Your task to perform on an android device: turn off priority inbox in the gmail app Image 0: 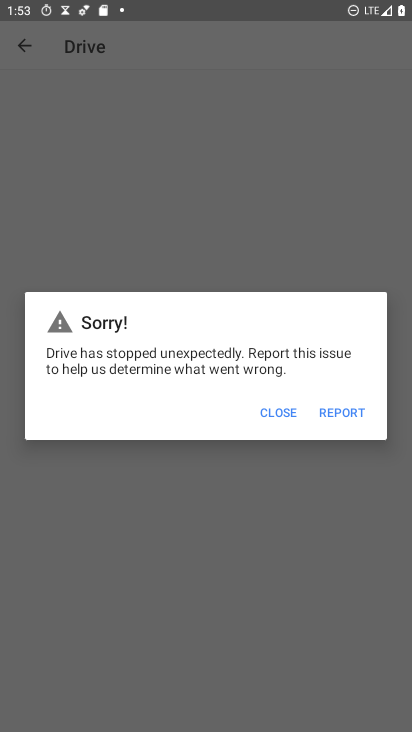
Step 0: press home button
Your task to perform on an android device: turn off priority inbox in the gmail app Image 1: 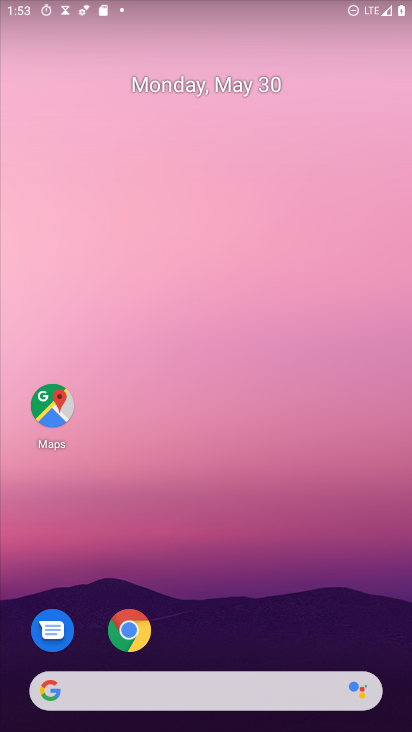
Step 1: drag from (265, 704) to (228, 200)
Your task to perform on an android device: turn off priority inbox in the gmail app Image 2: 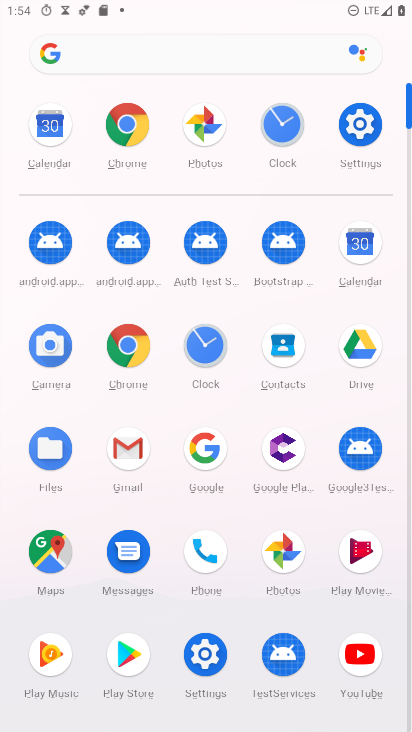
Step 2: click (115, 460)
Your task to perform on an android device: turn off priority inbox in the gmail app Image 3: 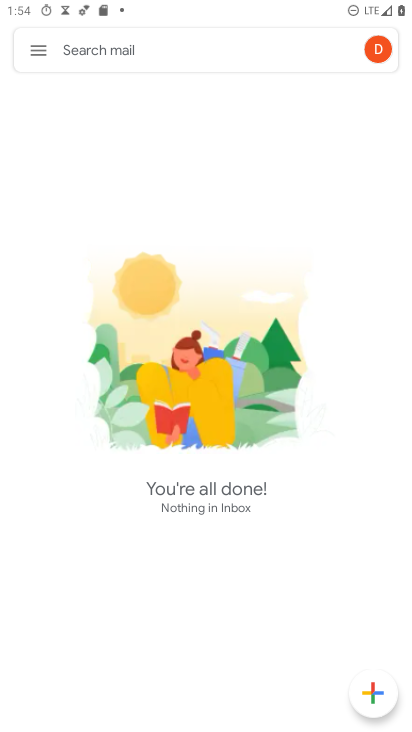
Step 3: click (28, 56)
Your task to perform on an android device: turn off priority inbox in the gmail app Image 4: 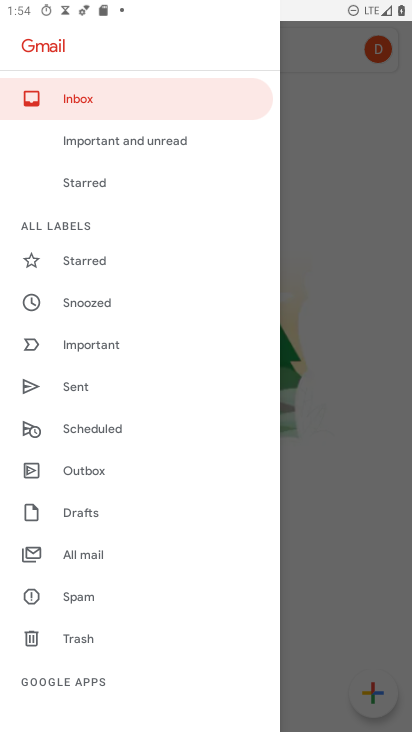
Step 4: drag from (132, 645) to (201, 468)
Your task to perform on an android device: turn off priority inbox in the gmail app Image 5: 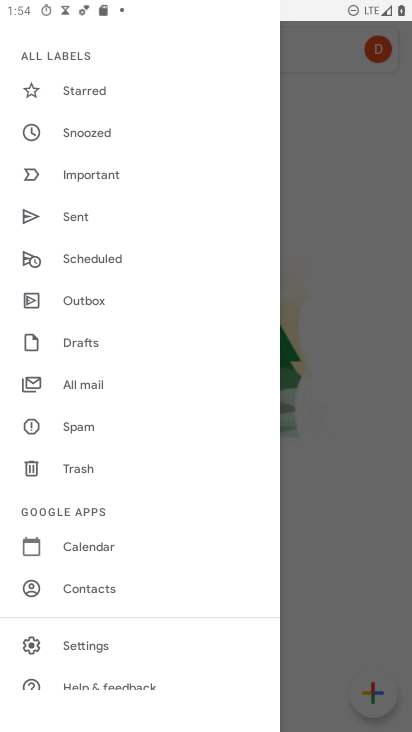
Step 5: click (101, 642)
Your task to perform on an android device: turn off priority inbox in the gmail app Image 6: 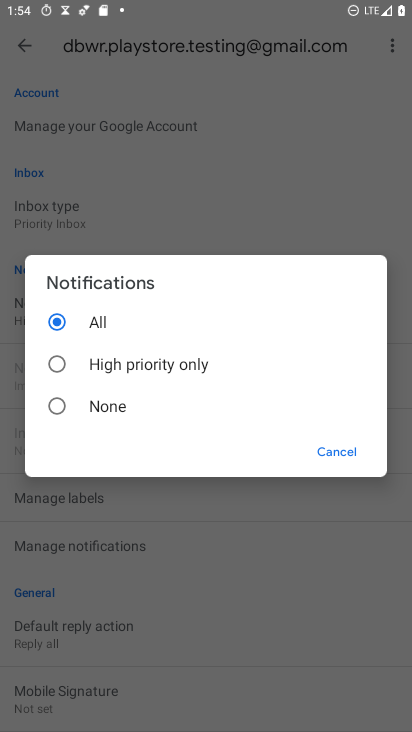
Step 6: click (320, 452)
Your task to perform on an android device: turn off priority inbox in the gmail app Image 7: 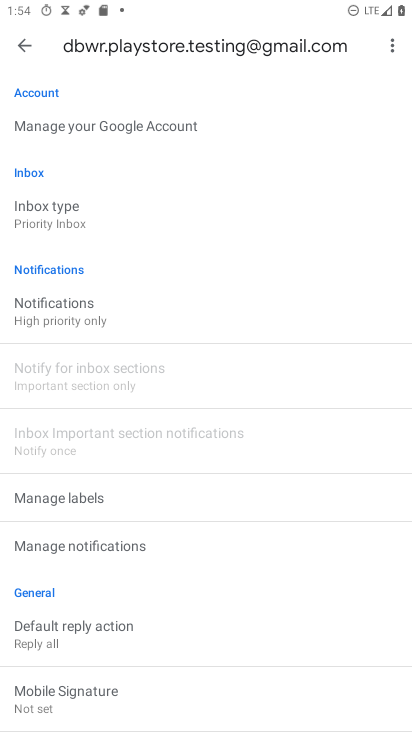
Step 7: click (89, 227)
Your task to perform on an android device: turn off priority inbox in the gmail app Image 8: 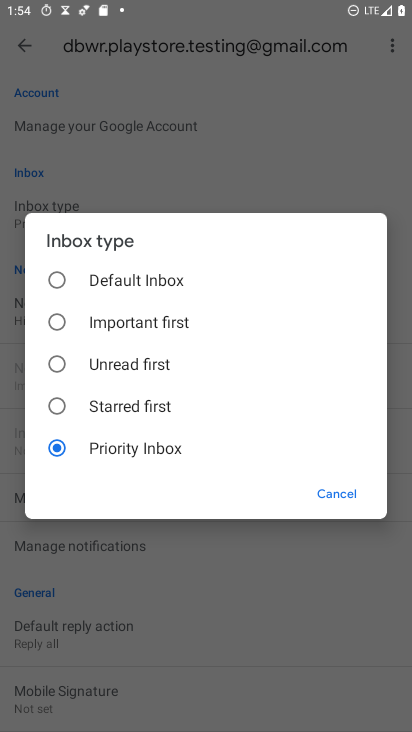
Step 8: click (127, 279)
Your task to perform on an android device: turn off priority inbox in the gmail app Image 9: 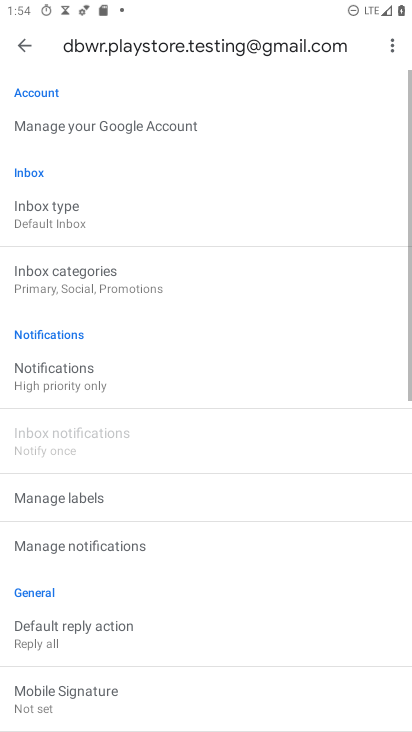
Step 9: click (96, 224)
Your task to perform on an android device: turn off priority inbox in the gmail app Image 10: 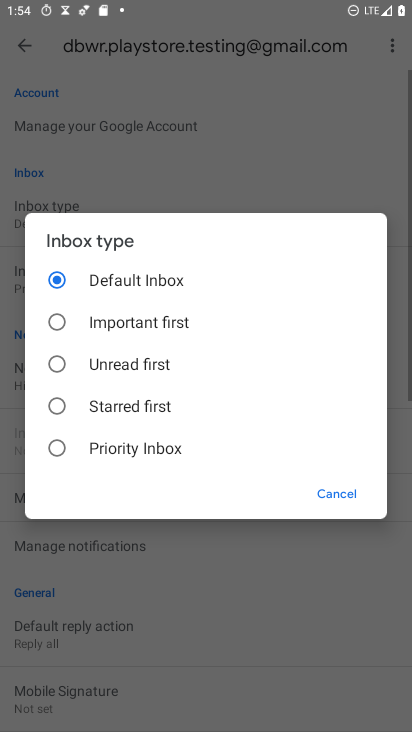
Step 10: task complete